Your task to perform on an android device: Go to ESPN.com Image 0: 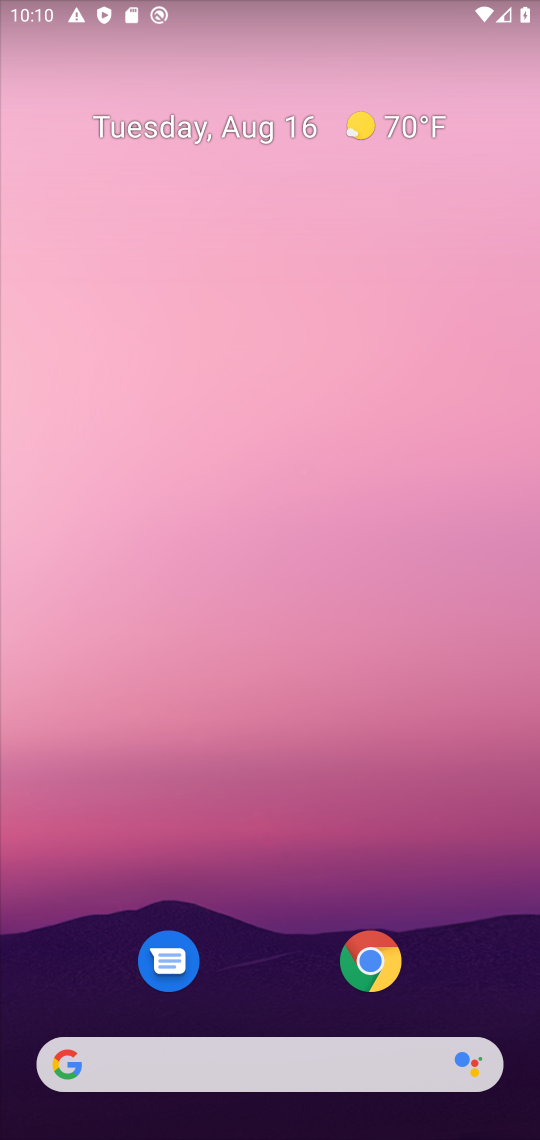
Step 0: click (315, 1084)
Your task to perform on an android device: Go to ESPN.com Image 1: 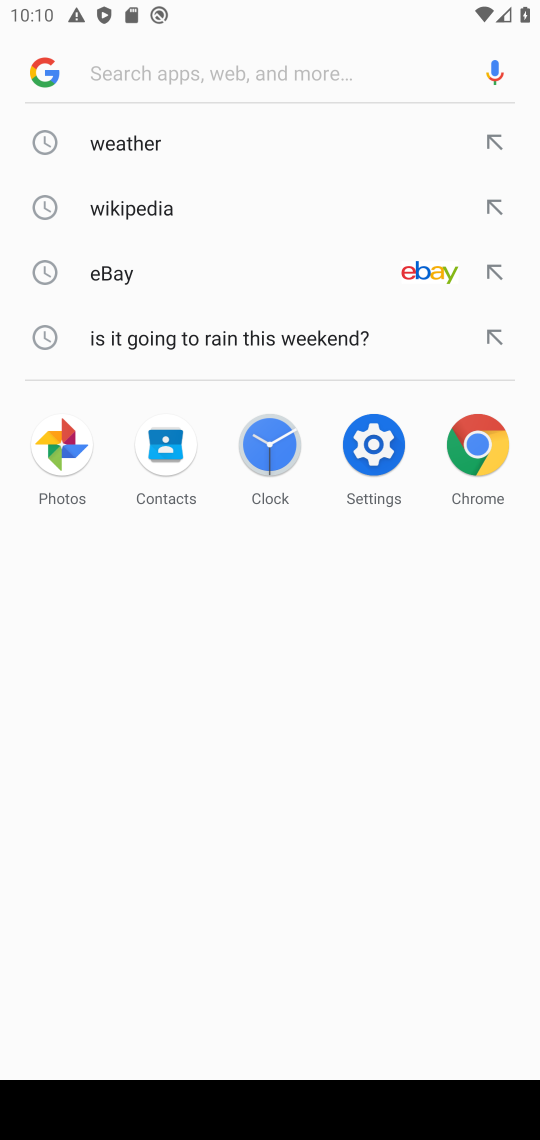
Step 1: type "ESPN.com"
Your task to perform on an android device: Go to ESPN.com Image 2: 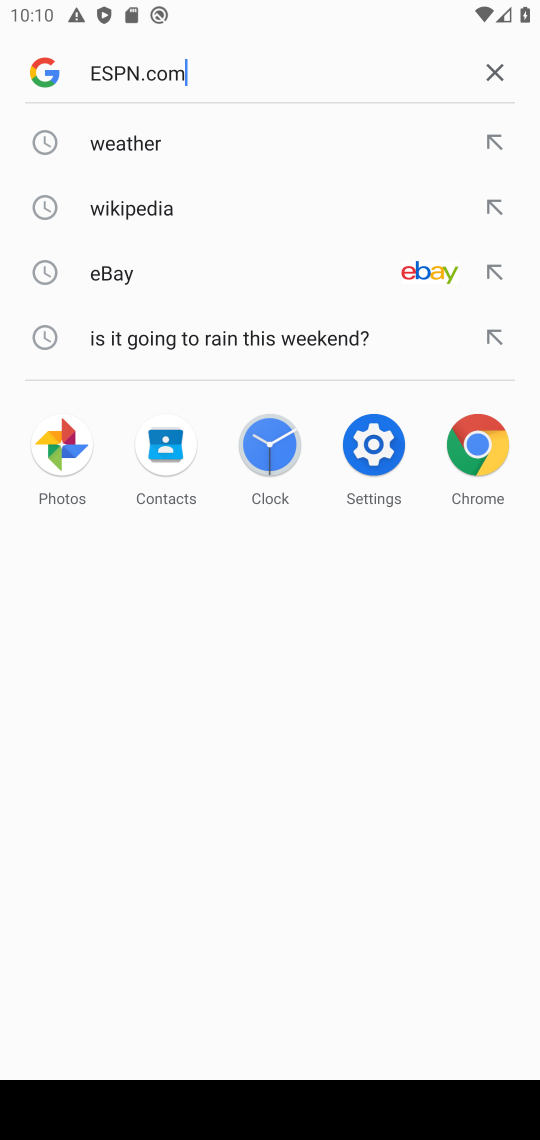
Step 2: task complete